Your task to perform on an android device: set the stopwatch Image 0: 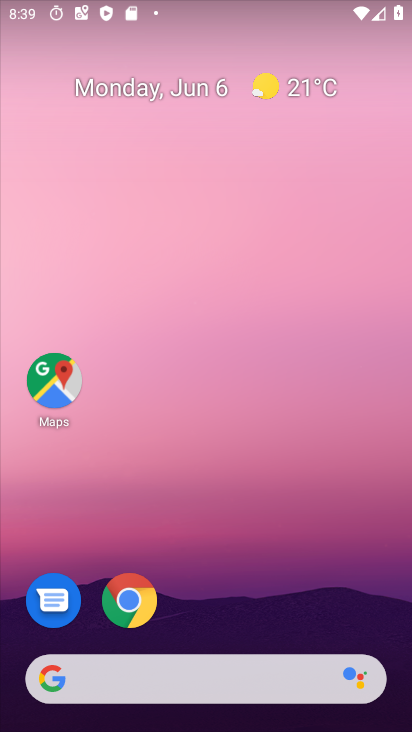
Step 0: drag from (266, 561) to (405, 62)
Your task to perform on an android device: set the stopwatch Image 1: 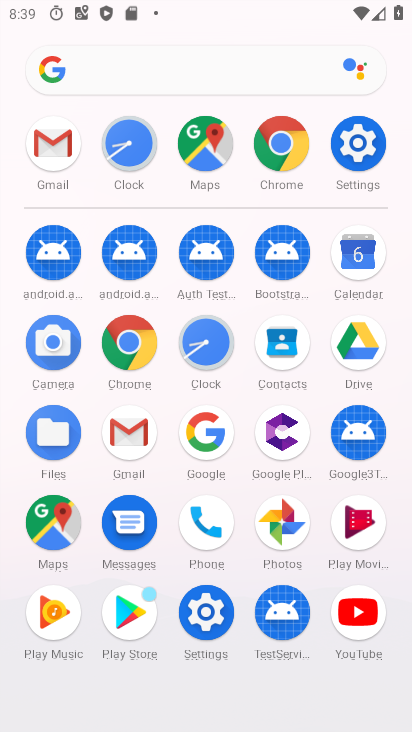
Step 1: drag from (15, 516) to (15, 195)
Your task to perform on an android device: set the stopwatch Image 2: 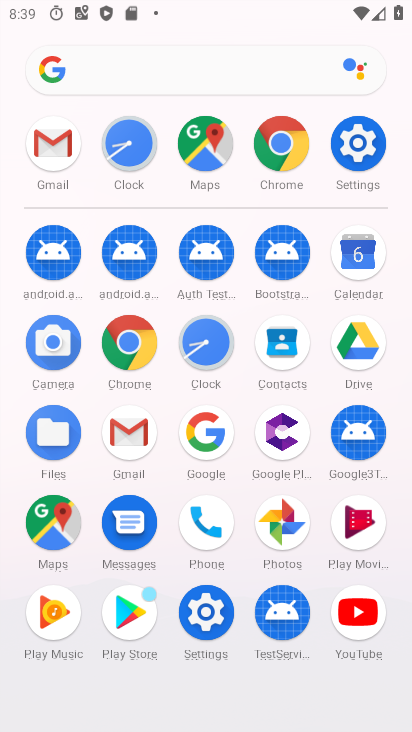
Step 2: click (211, 332)
Your task to perform on an android device: set the stopwatch Image 3: 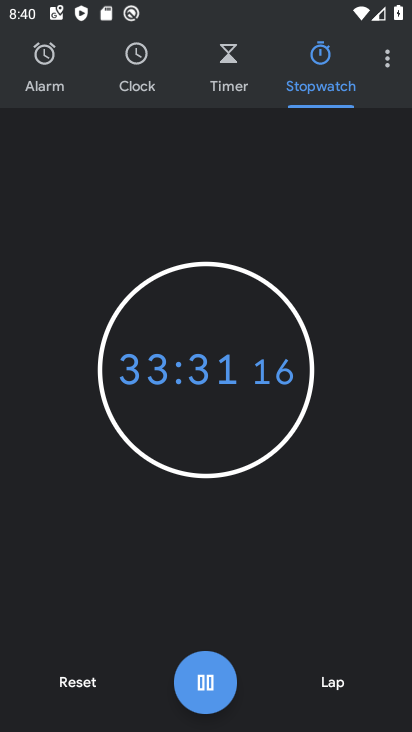
Step 3: click (64, 683)
Your task to perform on an android device: set the stopwatch Image 4: 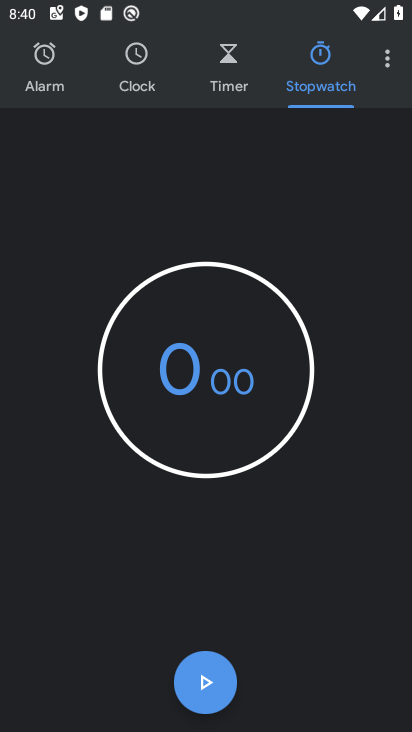
Step 4: click (207, 675)
Your task to perform on an android device: set the stopwatch Image 5: 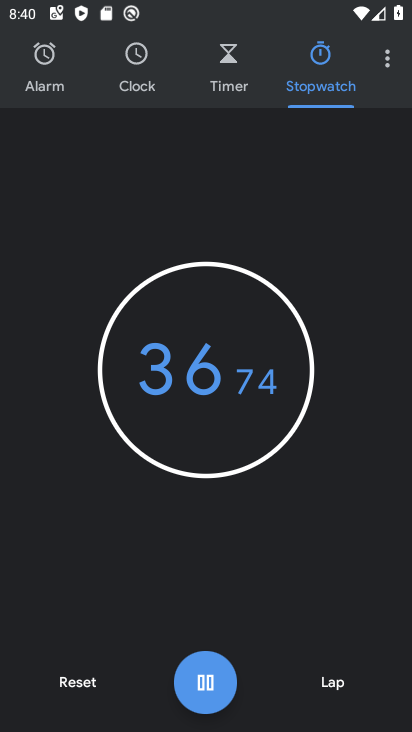
Step 5: task complete